Your task to perform on an android device: snooze an email in the gmail app Image 0: 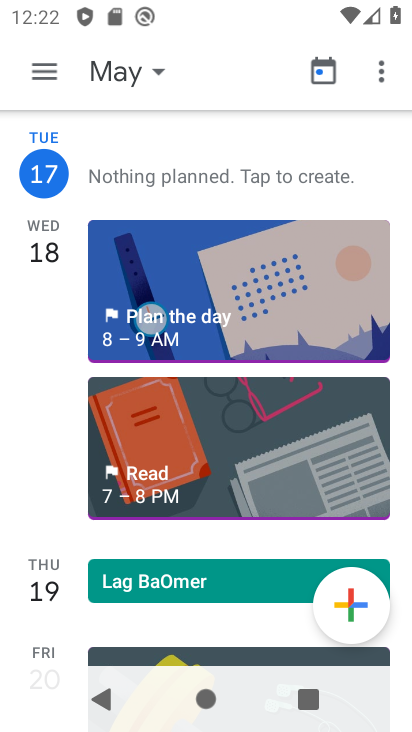
Step 0: press home button
Your task to perform on an android device: snooze an email in the gmail app Image 1: 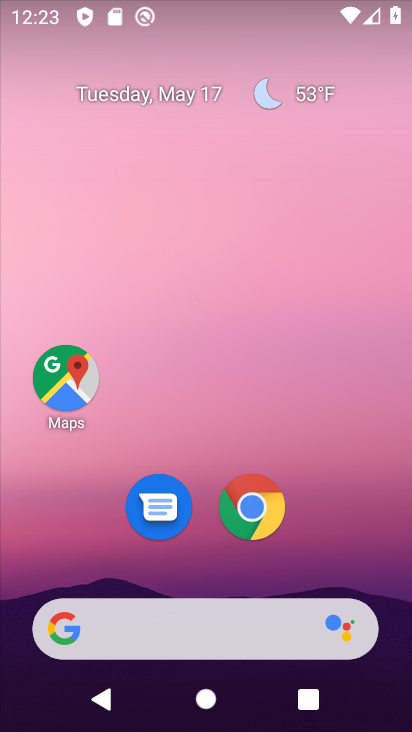
Step 1: drag from (211, 561) to (200, 126)
Your task to perform on an android device: snooze an email in the gmail app Image 2: 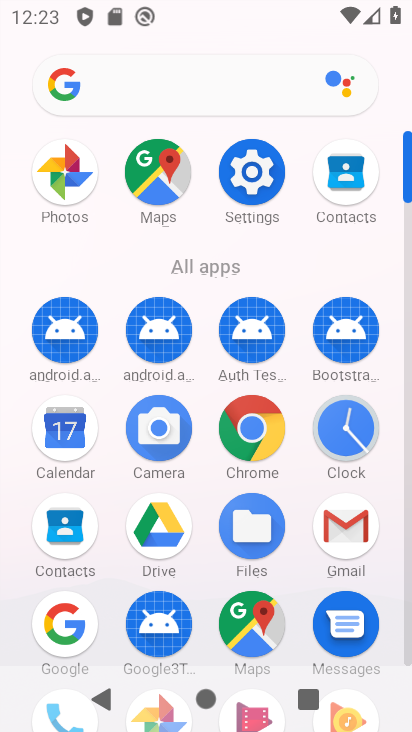
Step 2: click (348, 528)
Your task to perform on an android device: snooze an email in the gmail app Image 3: 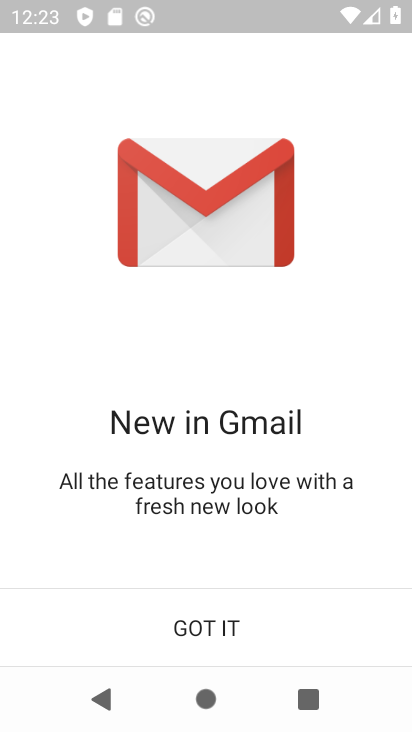
Step 3: click (190, 631)
Your task to perform on an android device: snooze an email in the gmail app Image 4: 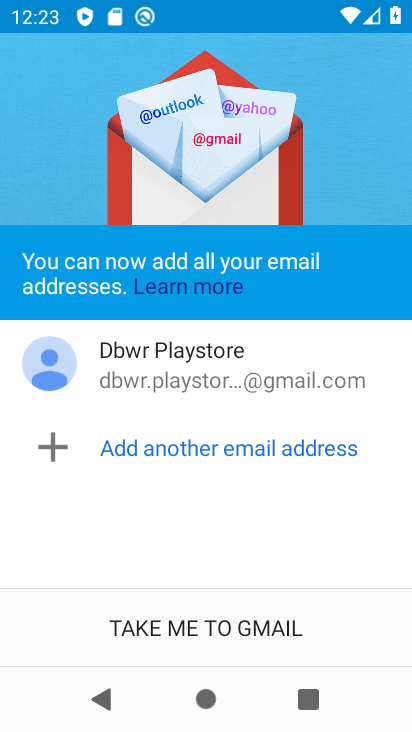
Step 4: click (161, 623)
Your task to perform on an android device: snooze an email in the gmail app Image 5: 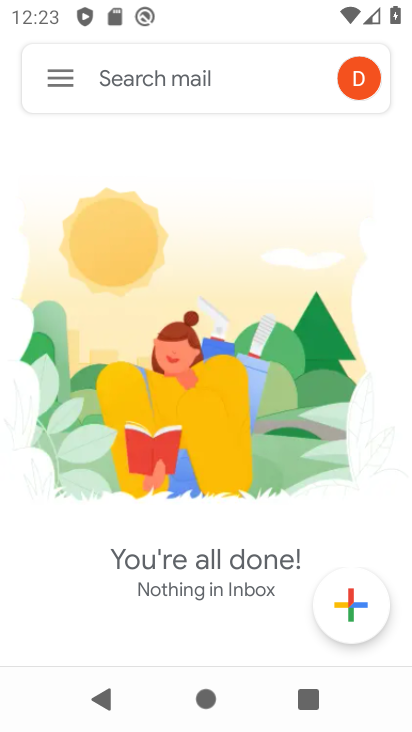
Step 5: click (56, 88)
Your task to perform on an android device: snooze an email in the gmail app Image 6: 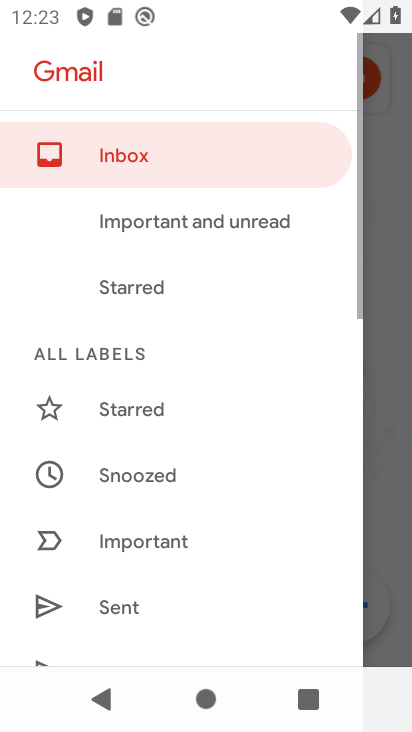
Step 6: drag from (165, 553) to (113, 244)
Your task to perform on an android device: snooze an email in the gmail app Image 7: 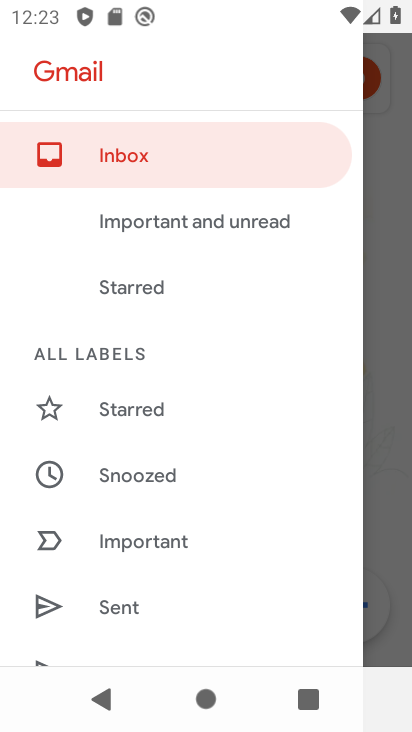
Step 7: drag from (126, 628) to (140, 198)
Your task to perform on an android device: snooze an email in the gmail app Image 8: 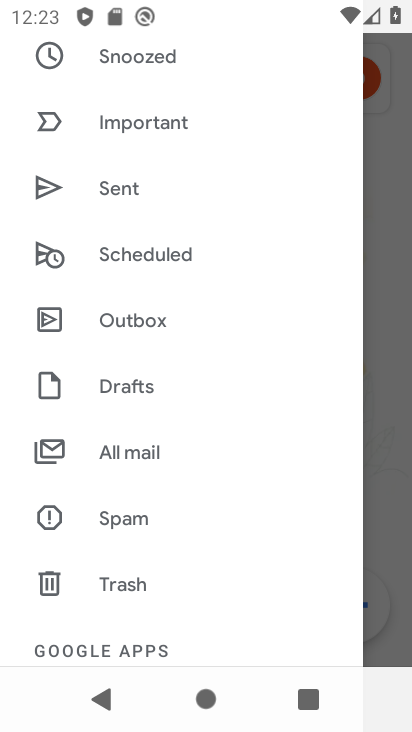
Step 8: click (121, 463)
Your task to perform on an android device: snooze an email in the gmail app Image 9: 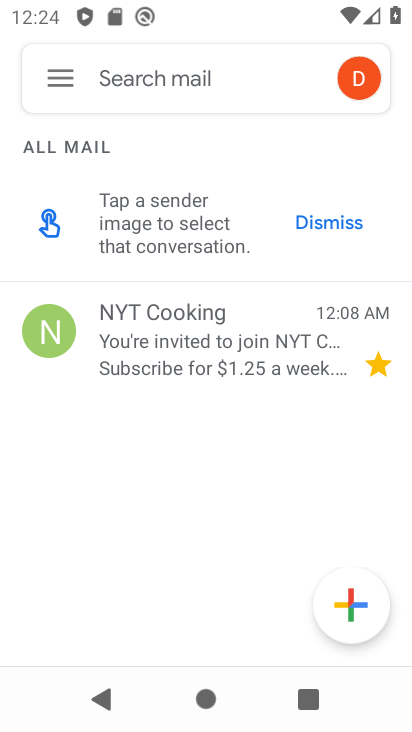
Step 9: click (160, 346)
Your task to perform on an android device: snooze an email in the gmail app Image 10: 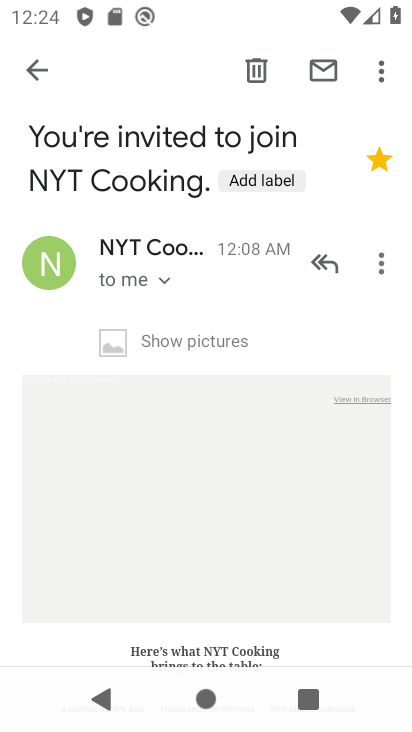
Step 10: click (379, 82)
Your task to perform on an android device: snooze an email in the gmail app Image 11: 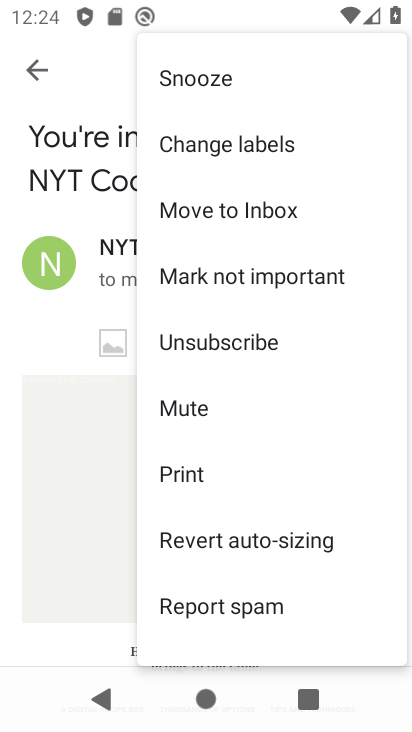
Step 11: click (223, 88)
Your task to perform on an android device: snooze an email in the gmail app Image 12: 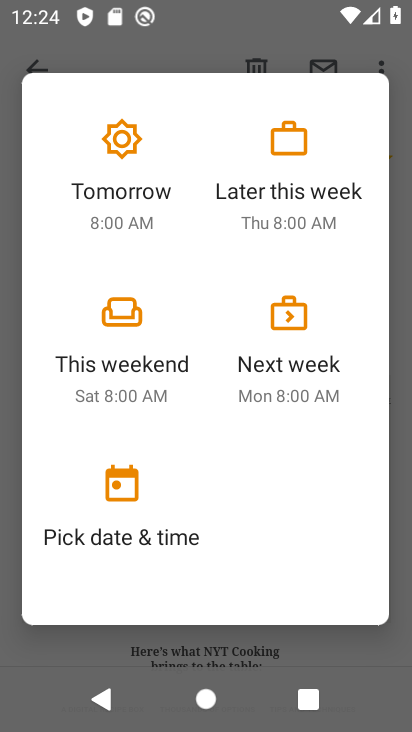
Step 12: click (302, 371)
Your task to perform on an android device: snooze an email in the gmail app Image 13: 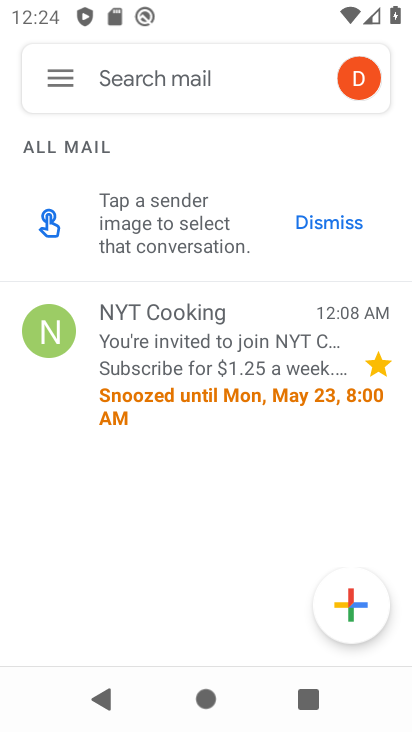
Step 13: task complete